Your task to perform on an android device: clear history in the chrome app Image 0: 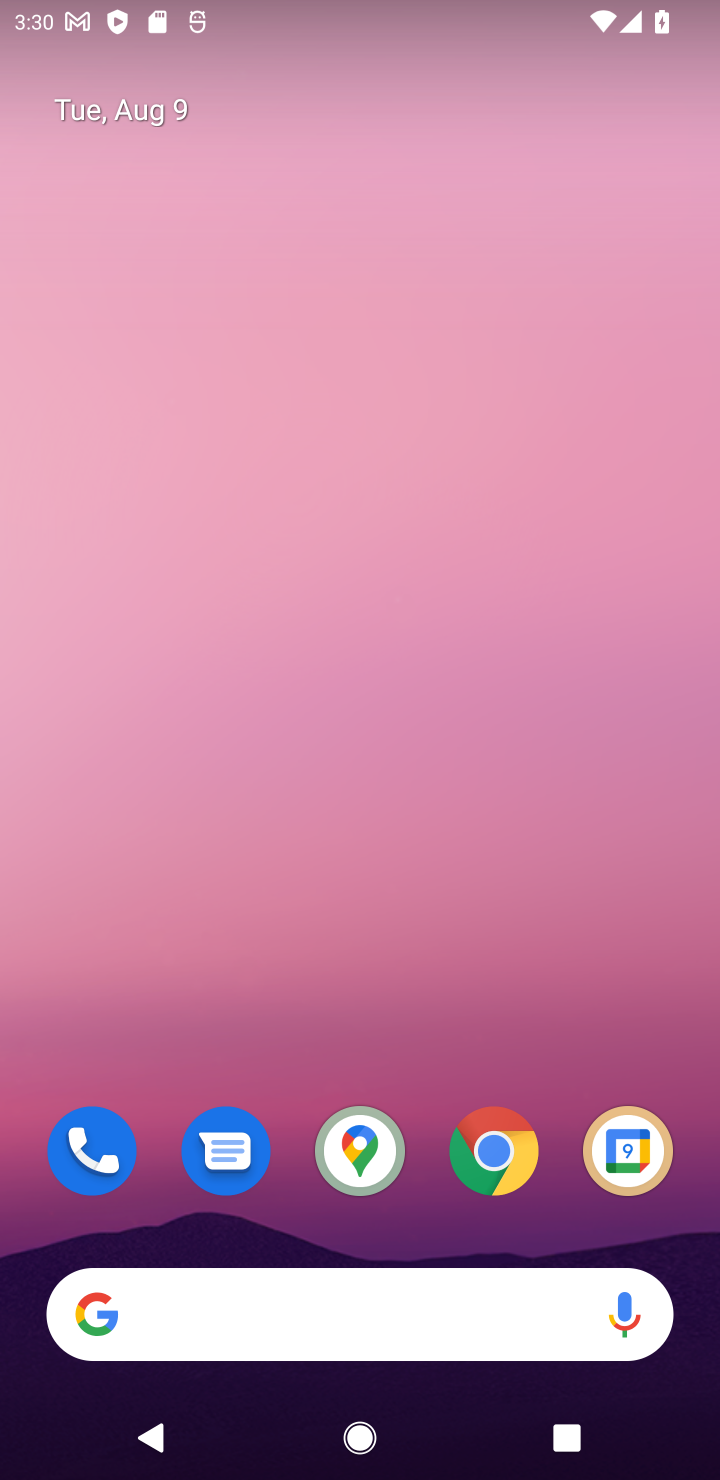
Step 0: click (533, 1126)
Your task to perform on an android device: clear history in the chrome app Image 1: 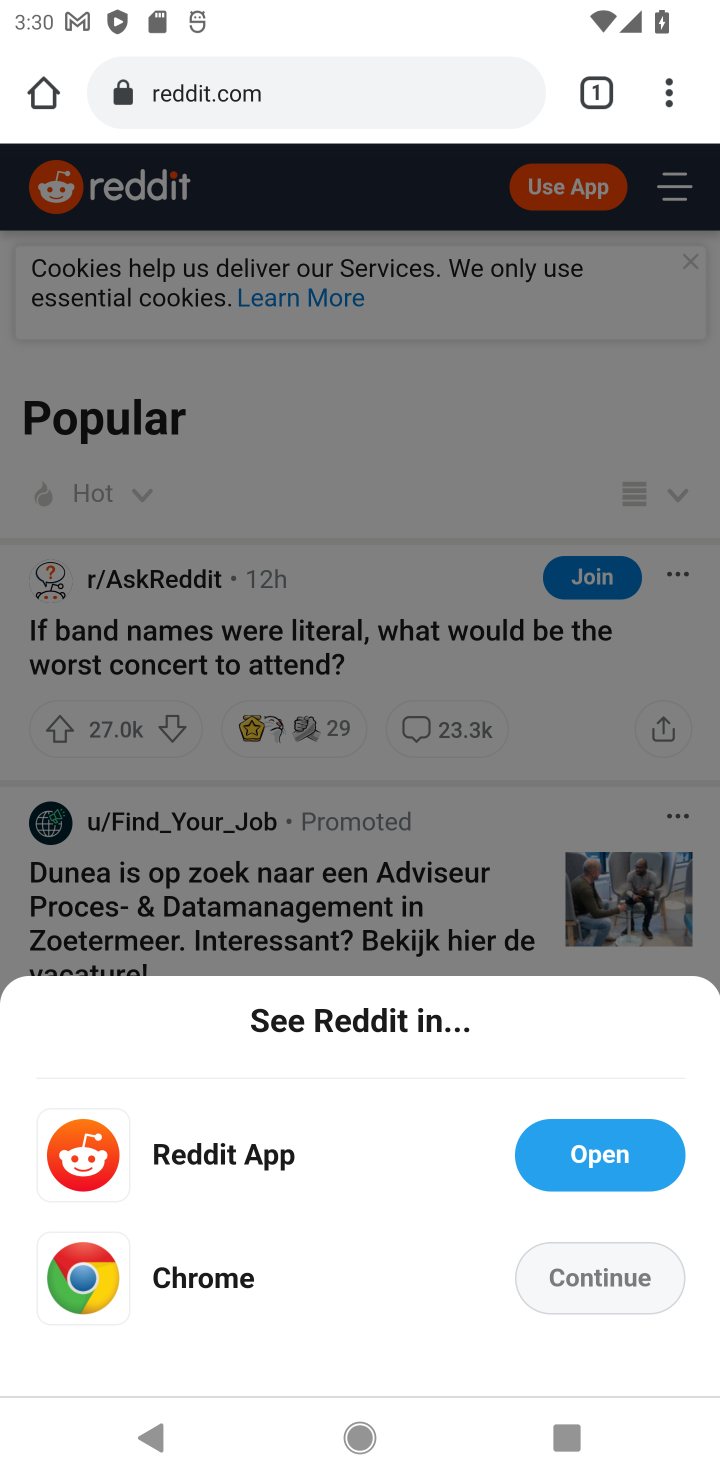
Step 1: click (657, 89)
Your task to perform on an android device: clear history in the chrome app Image 2: 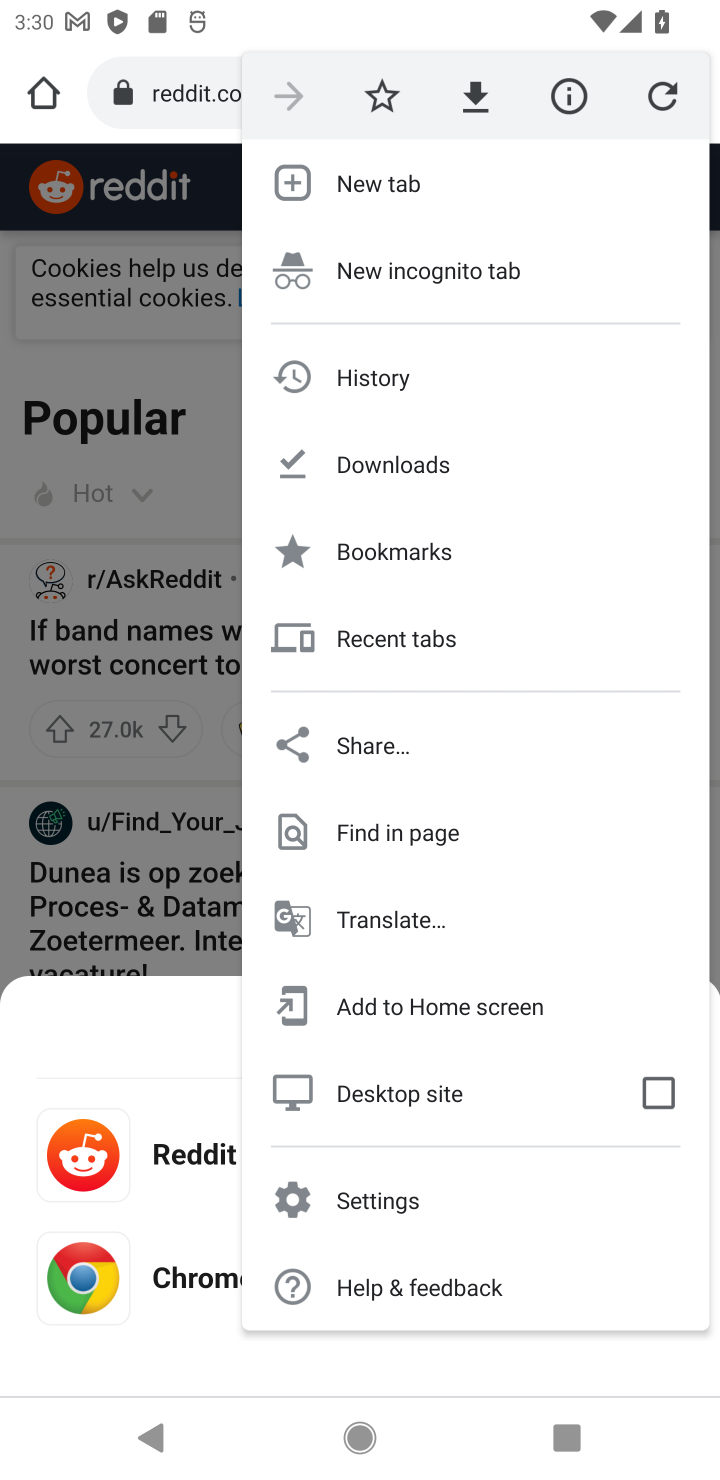
Step 2: click (397, 369)
Your task to perform on an android device: clear history in the chrome app Image 3: 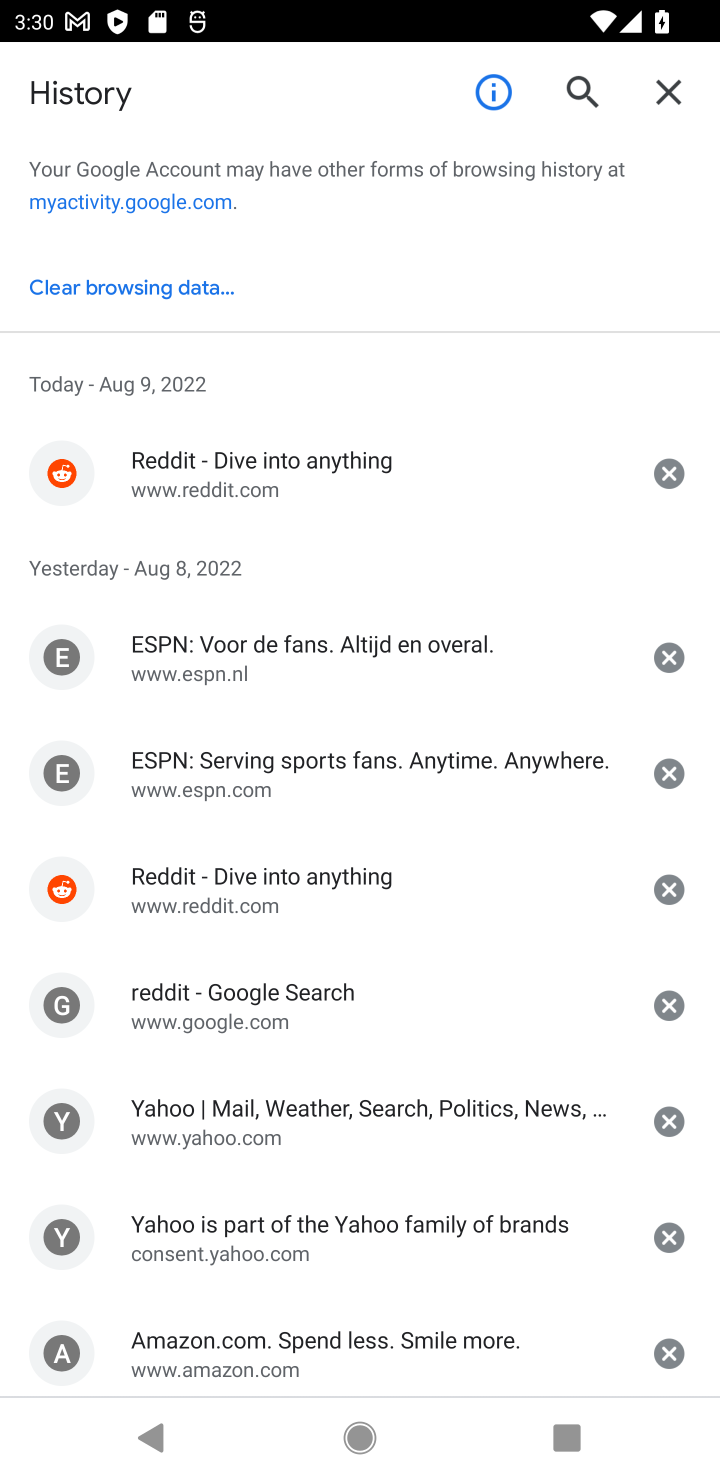
Step 3: click (126, 288)
Your task to perform on an android device: clear history in the chrome app Image 4: 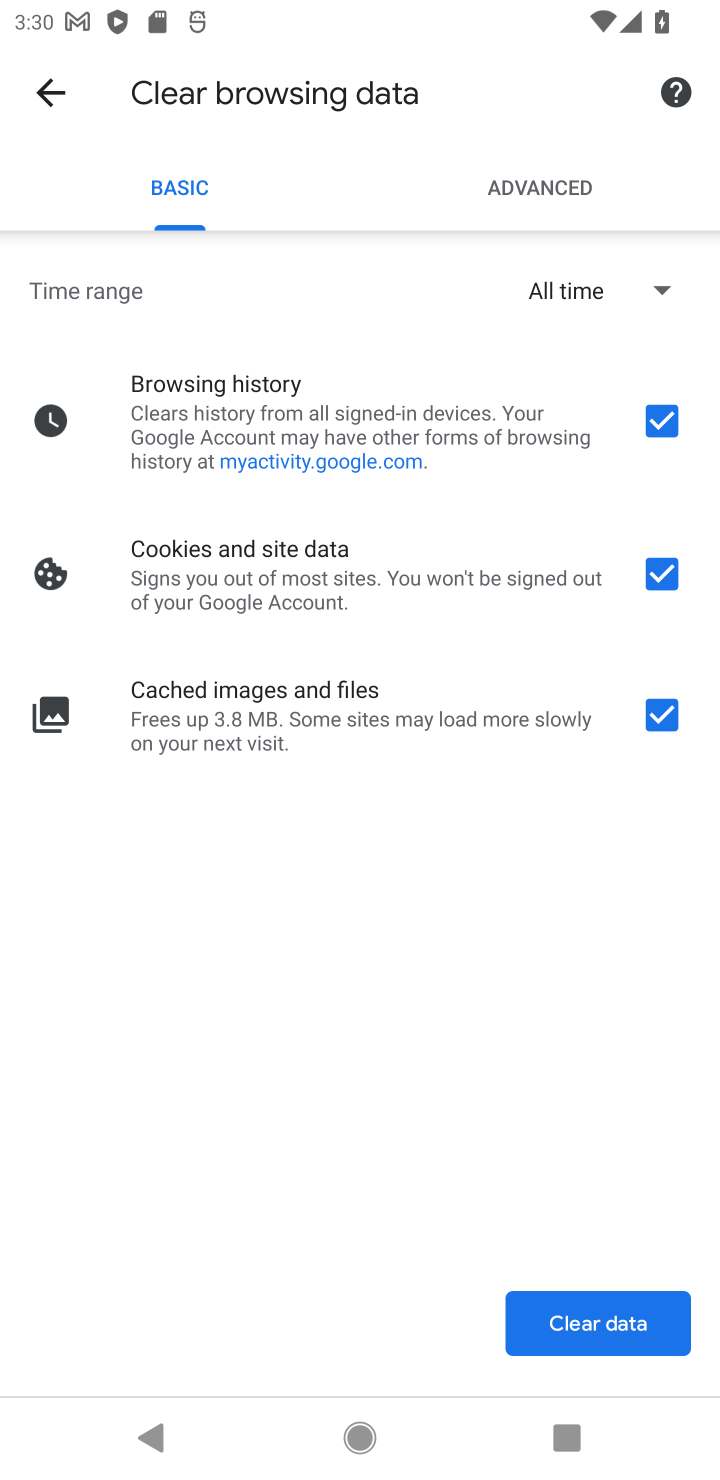
Step 4: click (604, 1327)
Your task to perform on an android device: clear history in the chrome app Image 5: 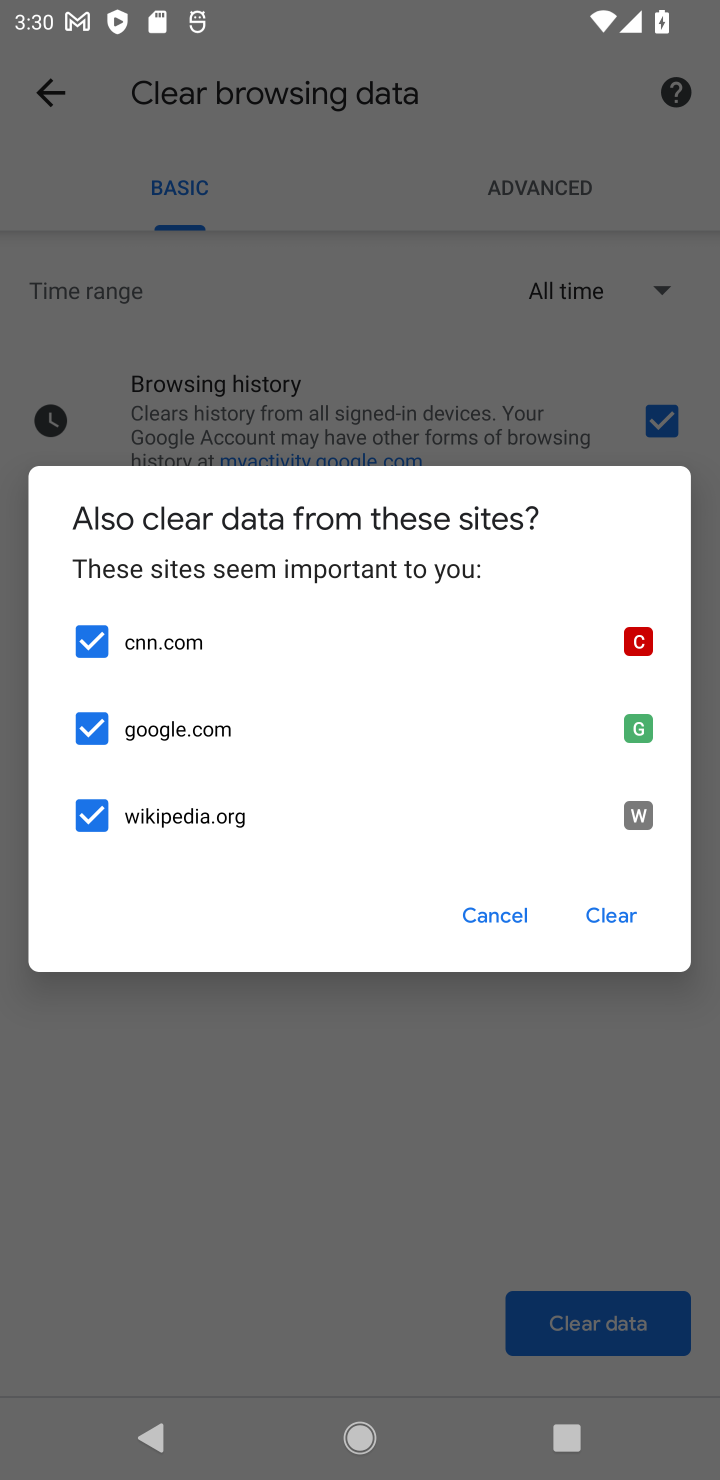
Step 5: click (631, 926)
Your task to perform on an android device: clear history in the chrome app Image 6: 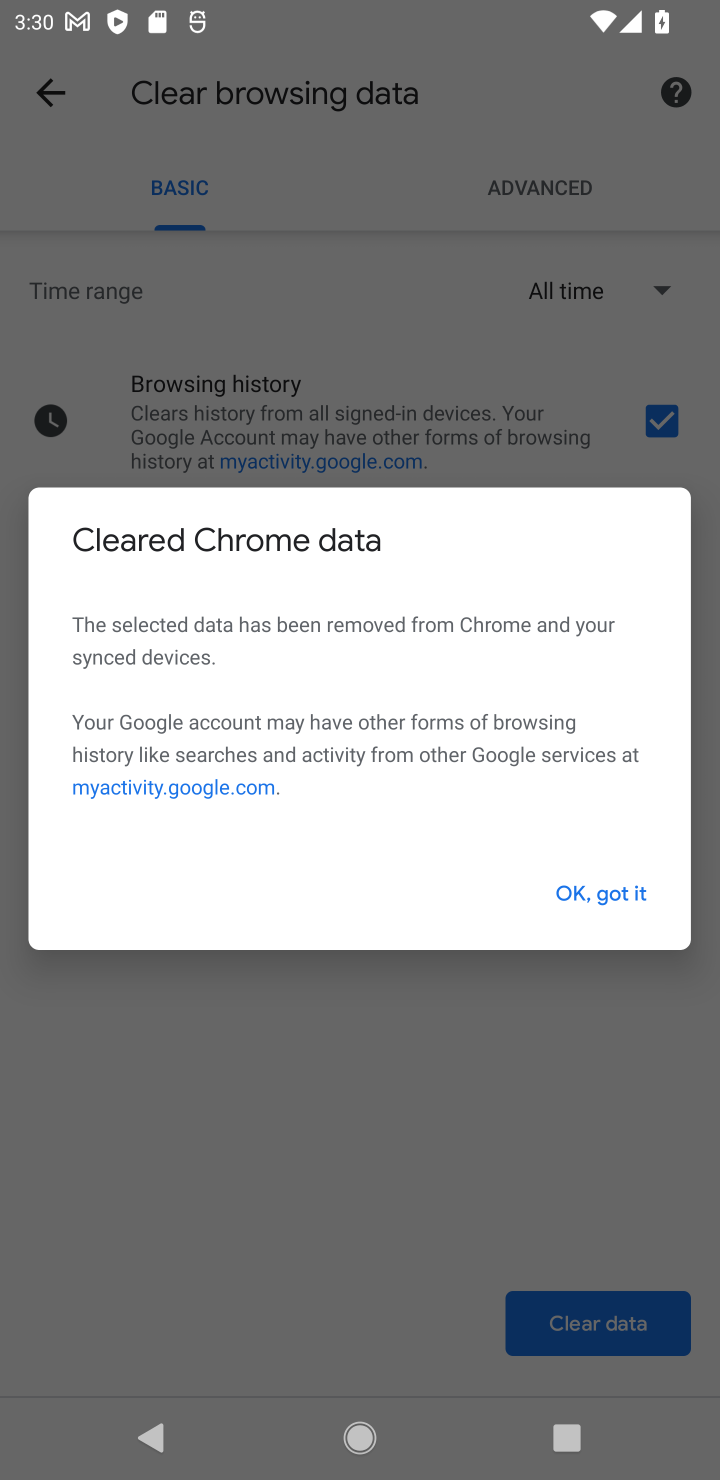
Step 6: task complete